Your task to perform on an android device: Open wifi settings Image 0: 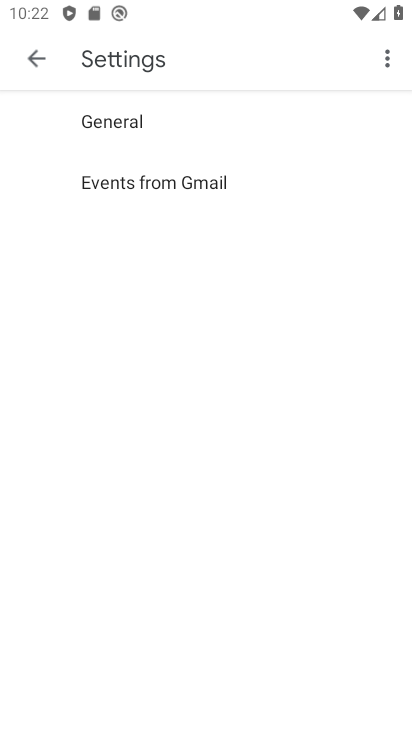
Step 0: press home button
Your task to perform on an android device: Open wifi settings Image 1: 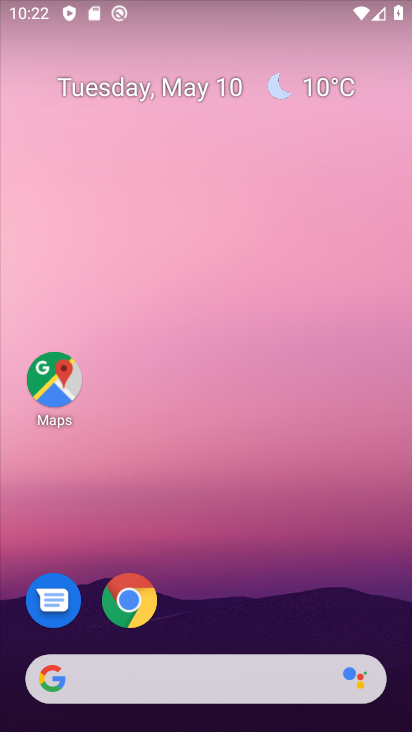
Step 1: drag from (253, 468) to (183, 52)
Your task to perform on an android device: Open wifi settings Image 2: 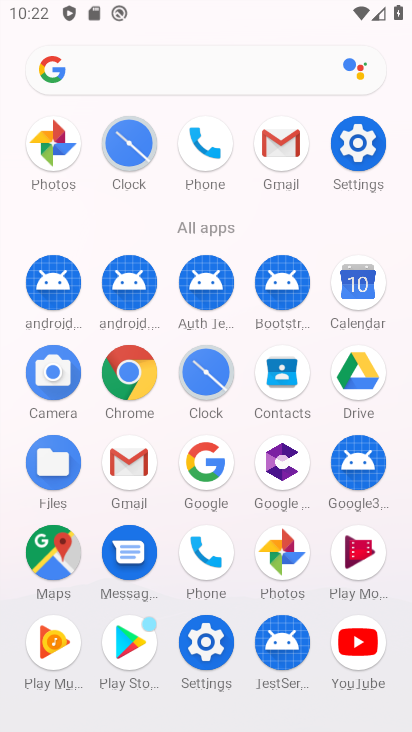
Step 2: click (350, 159)
Your task to perform on an android device: Open wifi settings Image 3: 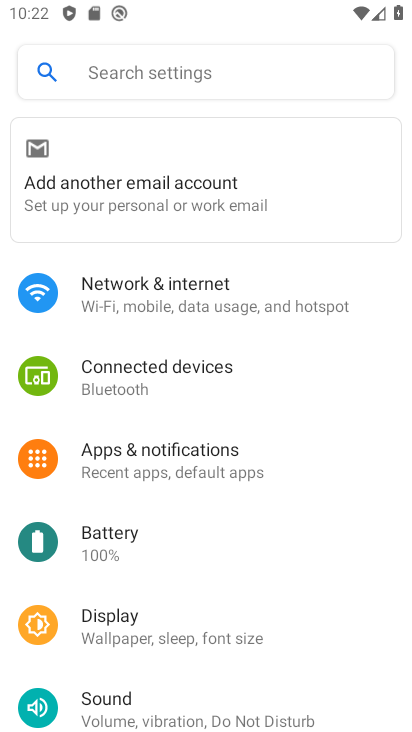
Step 3: drag from (273, 282) to (278, 532)
Your task to perform on an android device: Open wifi settings Image 4: 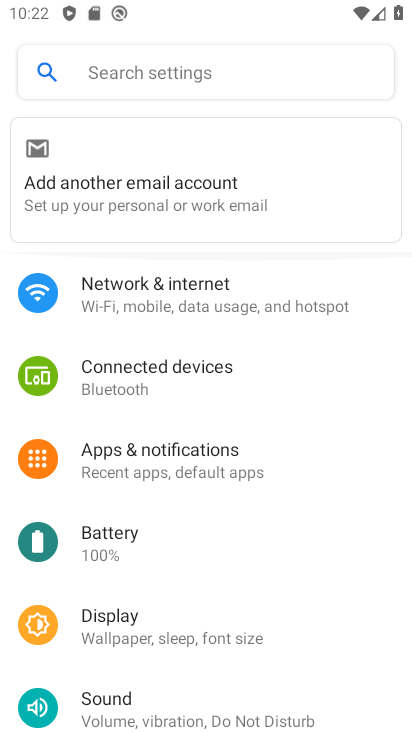
Step 4: click (224, 321)
Your task to perform on an android device: Open wifi settings Image 5: 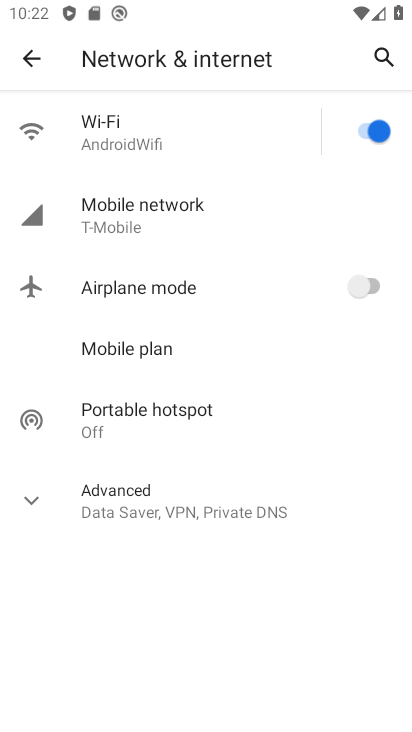
Step 5: click (216, 139)
Your task to perform on an android device: Open wifi settings Image 6: 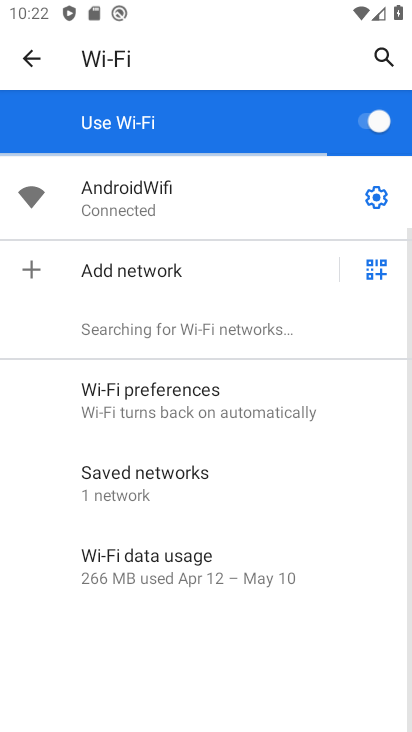
Step 6: task complete